Your task to perform on an android device: choose inbox layout in the gmail app Image 0: 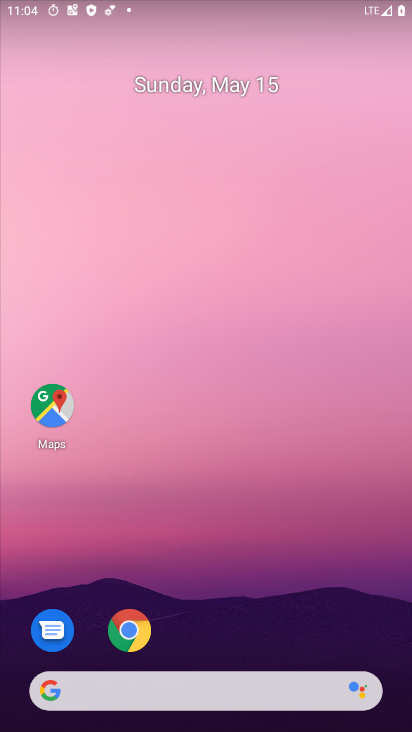
Step 0: drag from (239, 659) to (324, 60)
Your task to perform on an android device: choose inbox layout in the gmail app Image 1: 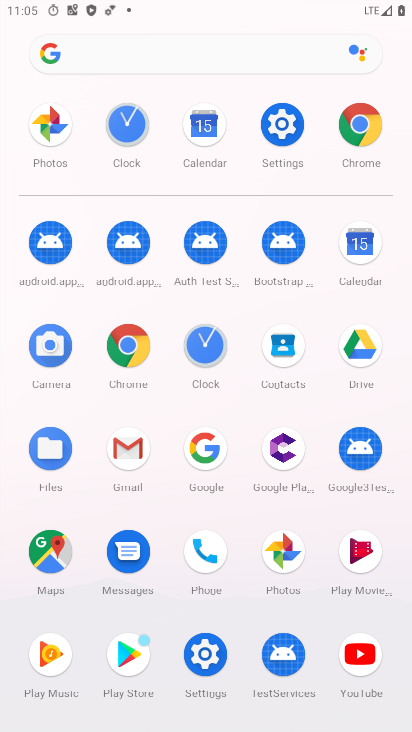
Step 1: click (123, 455)
Your task to perform on an android device: choose inbox layout in the gmail app Image 2: 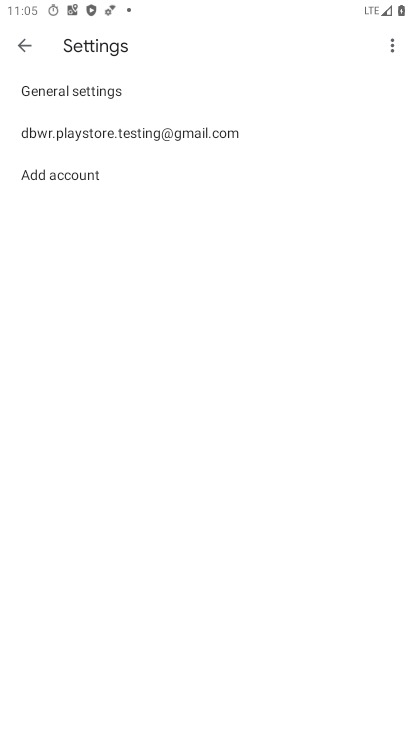
Step 2: click (171, 119)
Your task to perform on an android device: choose inbox layout in the gmail app Image 3: 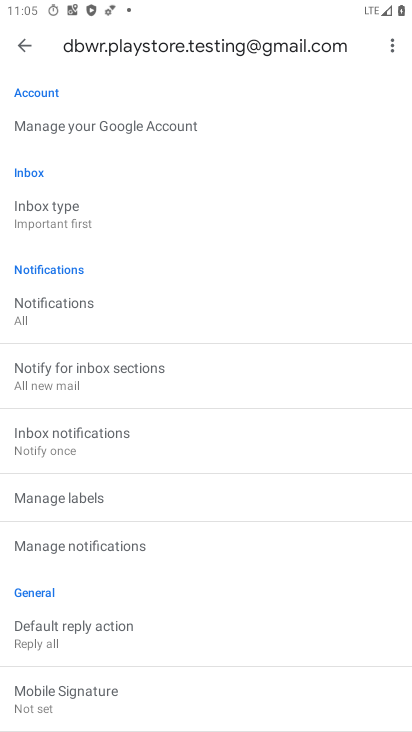
Step 3: click (71, 212)
Your task to perform on an android device: choose inbox layout in the gmail app Image 4: 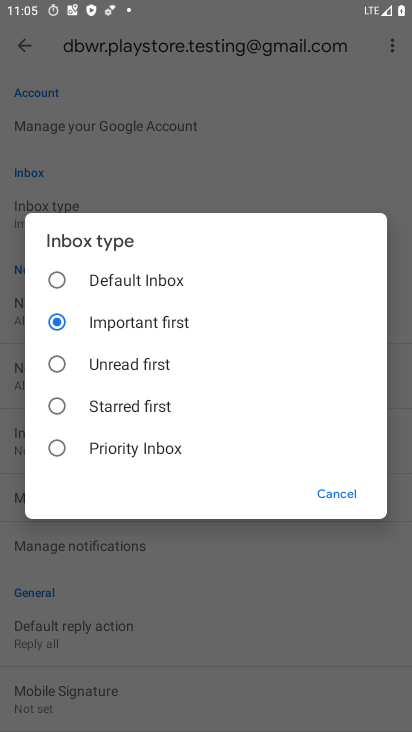
Step 4: click (51, 274)
Your task to perform on an android device: choose inbox layout in the gmail app Image 5: 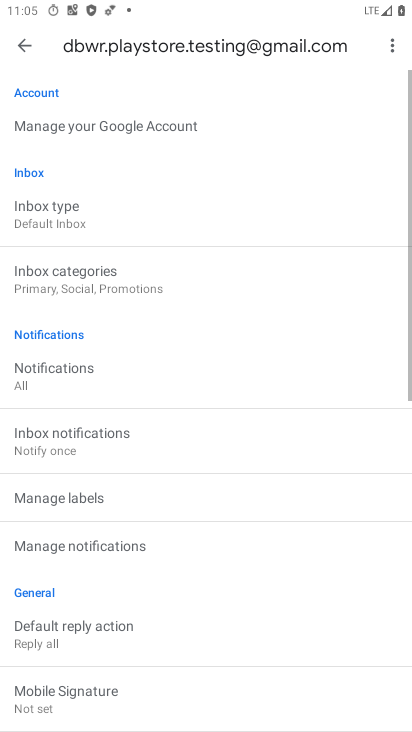
Step 5: task complete